Your task to perform on an android device: Go to Reddit.com Image 0: 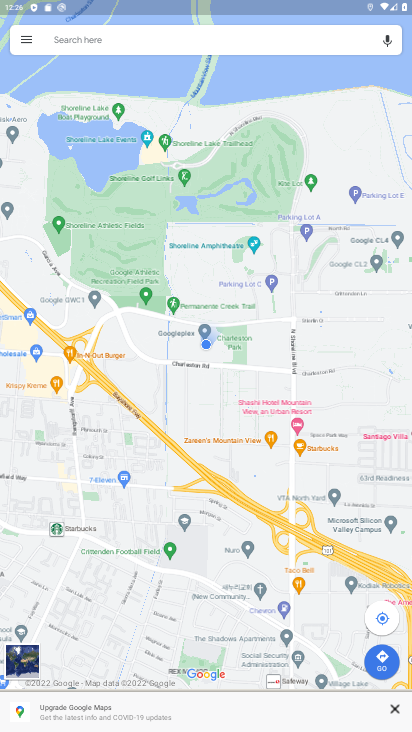
Step 0: press home button
Your task to perform on an android device: Go to Reddit.com Image 1: 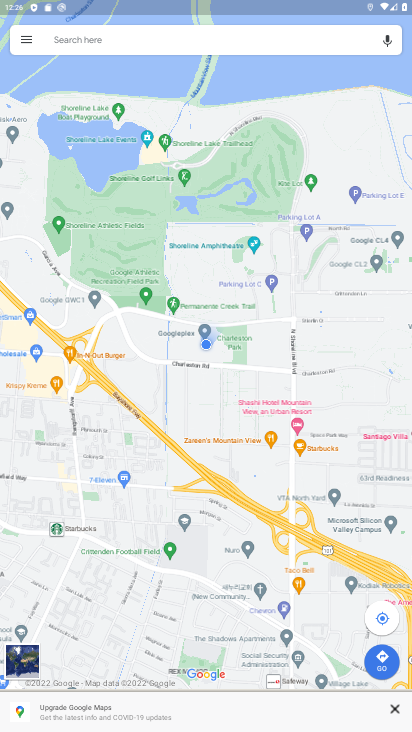
Step 1: drag from (380, 583) to (227, 43)
Your task to perform on an android device: Go to Reddit.com Image 2: 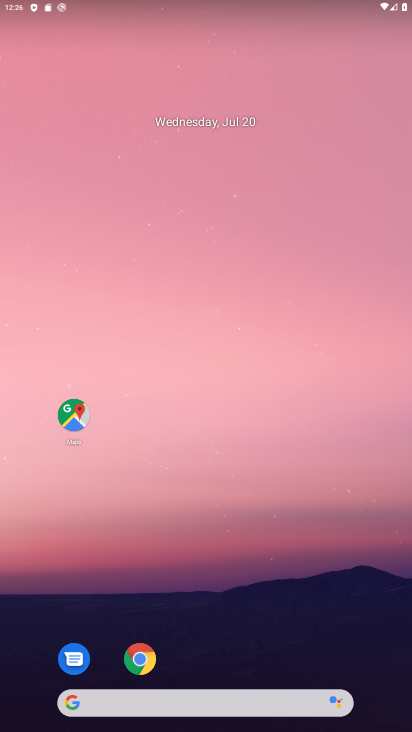
Step 2: drag from (341, 634) to (177, 153)
Your task to perform on an android device: Go to Reddit.com Image 3: 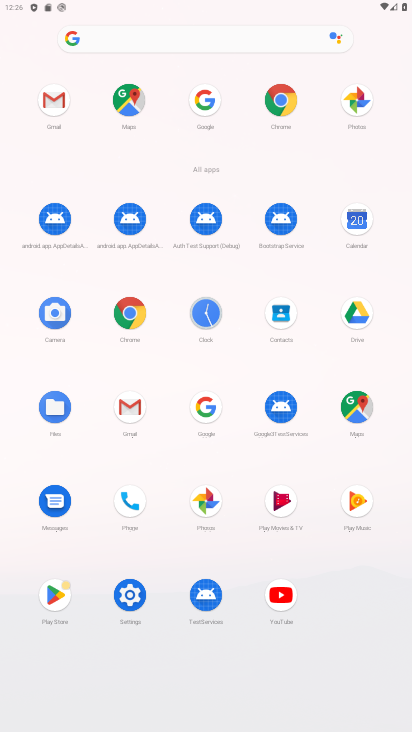
Step 3: click (196, 415)
Your task to perform on an android device: Go to Reddit.com Image 4: 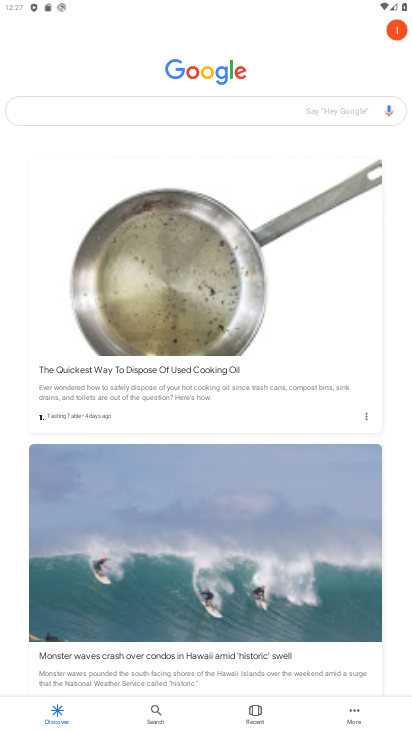
Step 4: click (140, 106)
Your task to perform on an android device: Go to Reddit.com Image 5: 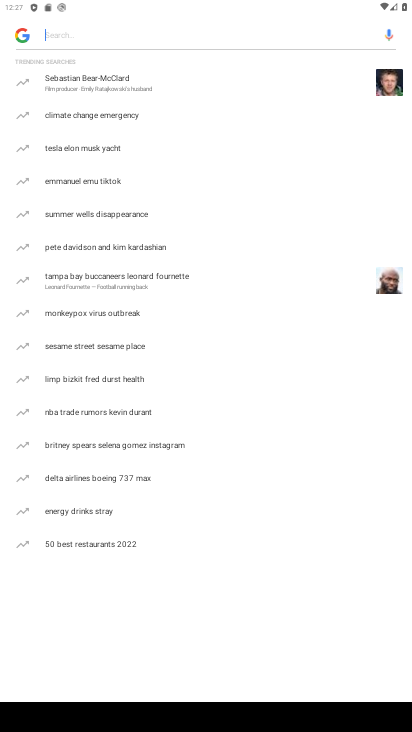
Step 5: type "Reddit.com"
Your task to perform on an android device: Go to Reddit.com Image 6: 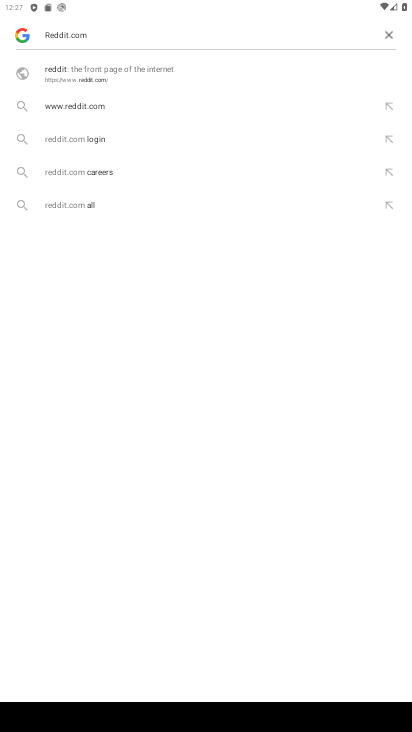
Step 6: click (86, 72)
Your task to perform on an android device: Go to Reddit.com Image 7: 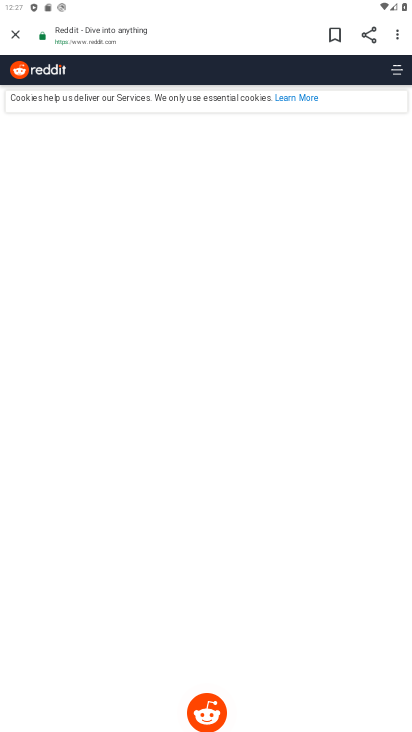
Step 7: task complete